Your task to perform on an android device: see creations saved in the google photos Image 0: 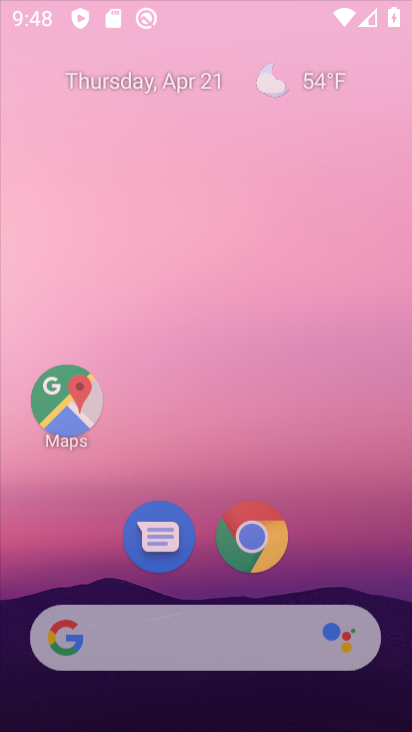
Step 0: click (220, 203)
Your task to perform on an android device: see creations saved in the google photos Image 1: 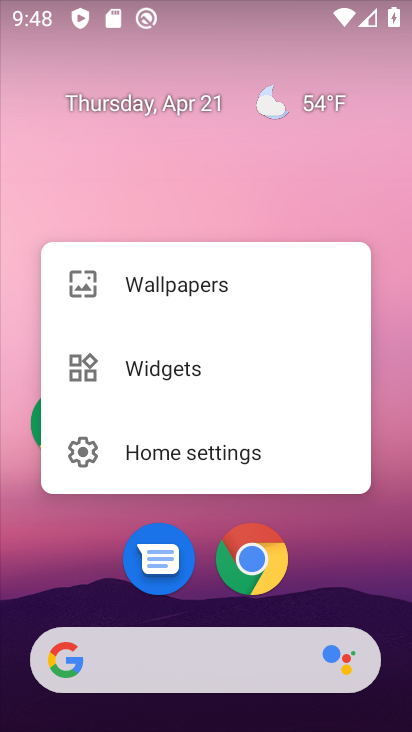
Step 1: drag from (198, 416) to (246, 140)
Your task to perform on an android device: see creations saved in the google photos Image 2: 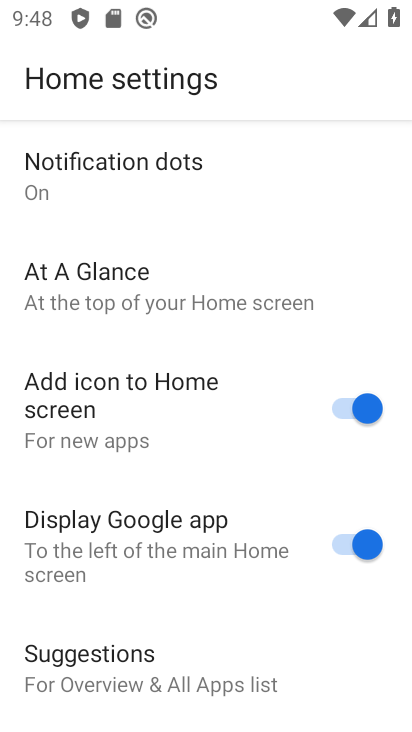
Step 2: press back button
Your task to perform on an android device: see creations saved in the google photos Image 3: 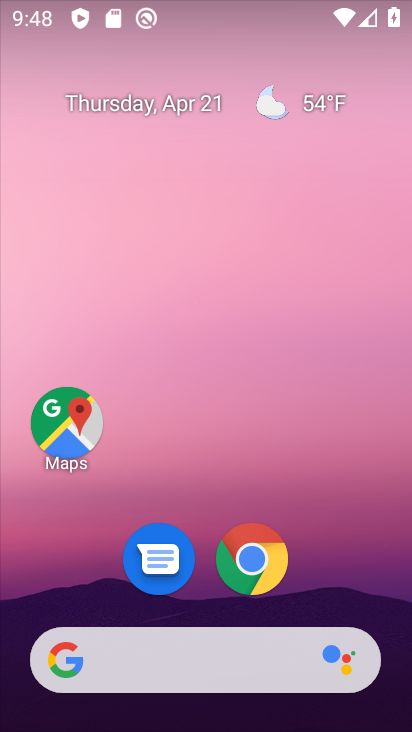
Step 3: drag from (197, 561) to (250, 125)
Your task to perform on an android device: see creations saved in the google photos Image 4: 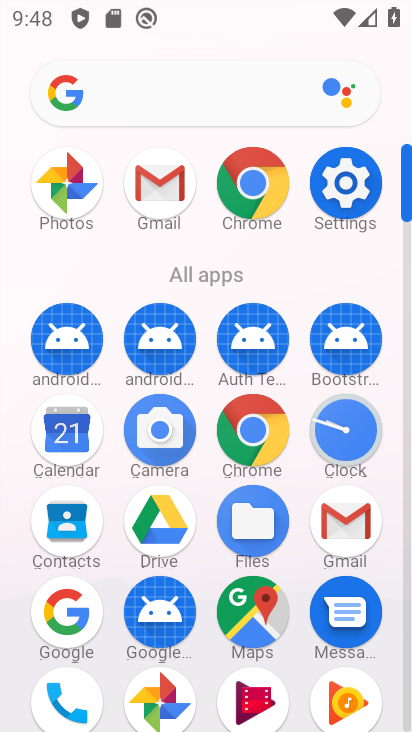
Step 4: click (150, 686)
Your task to perform on an android device: see creations saved in the google photos Image 5: 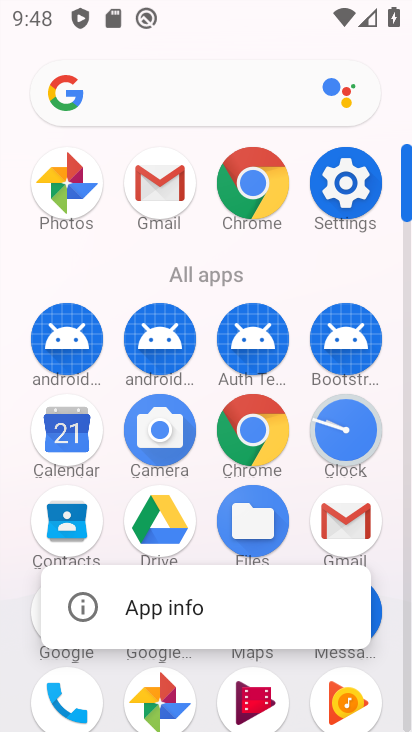
Step 5: click (159, 690)
Your task to perform on an android device: see creations saved in the google photos Image 6: 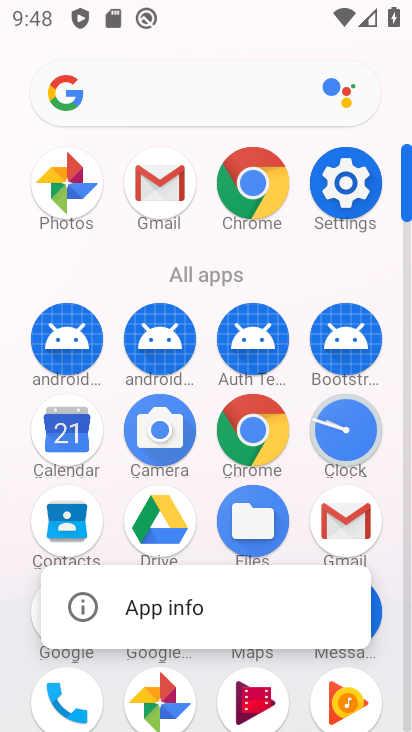
Step 6: click (158, 696)
Your task to perform on an android device: see creations saved in the google photos Image 7: 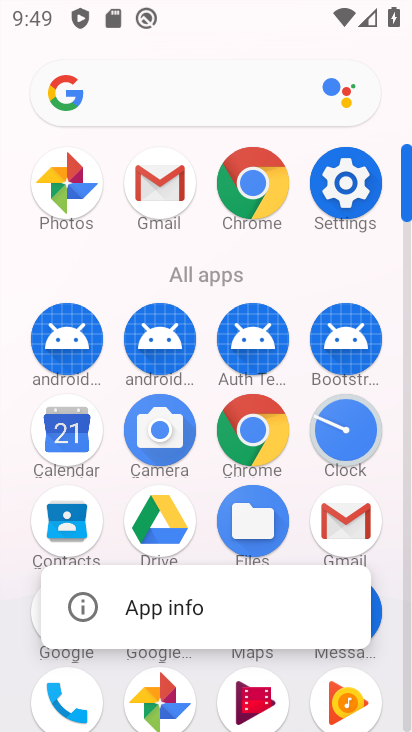
Step 7: click (168, 687)
Your task to perform on an android device: see creations saved in the google photos Image 8: 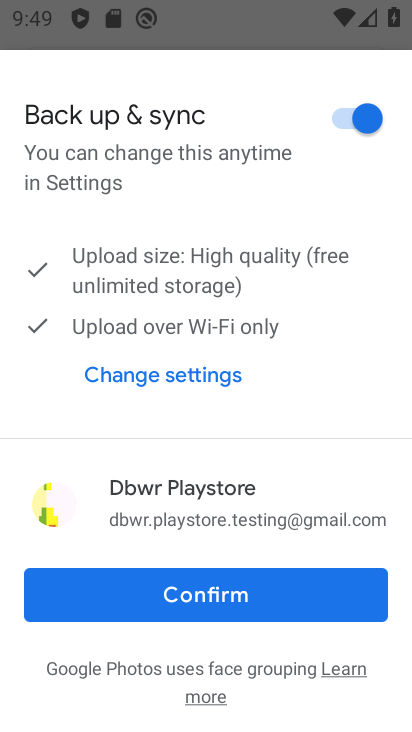
Step 8: click (193, 590)
Your task to perform on an android device: see creations saved in the google photos Image 9: 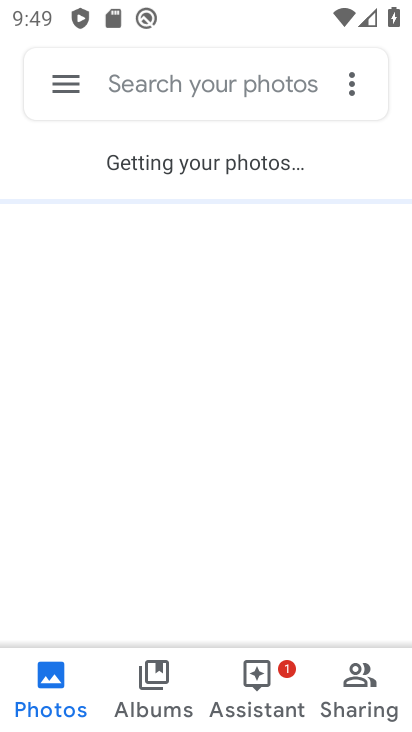
Step 9: click (74, 88)
Your task to perform on an android device: see creations saved in the google photos Image 10: 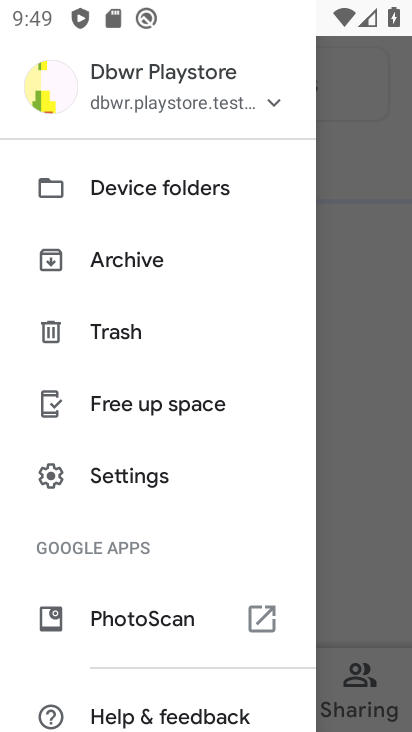
Step 10: click (161, 262)
Your task to perform on an android device: see creations saved in the google photos Image 11: 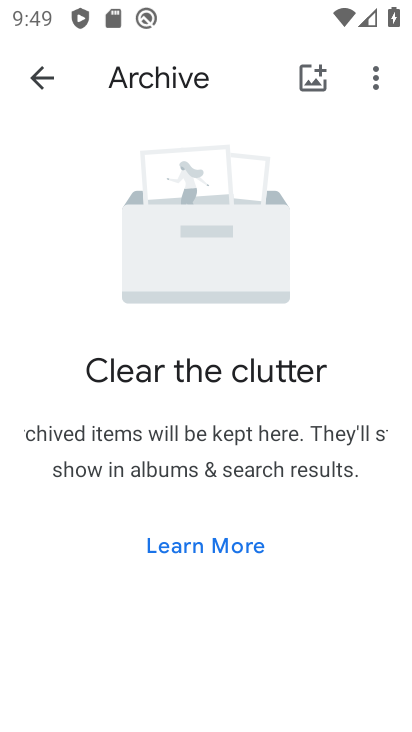
Step 11: click (42, 74)
Your task to perform on an android device: see creations saved in the google photos Image 12: 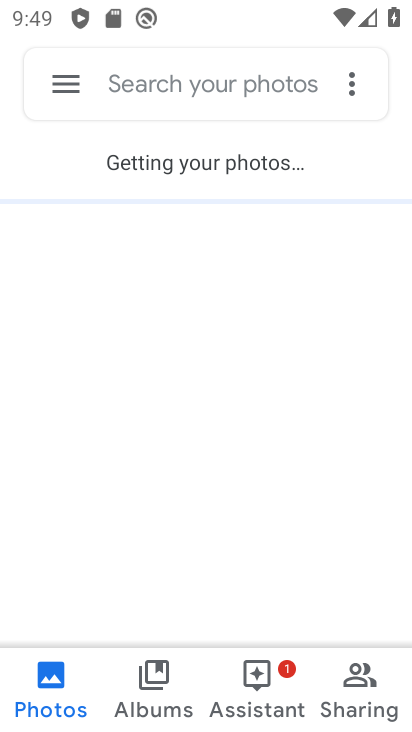
Step 12: click (68, 684)
Your task to perform on an android device: see creations saved in the google photos Image 13: 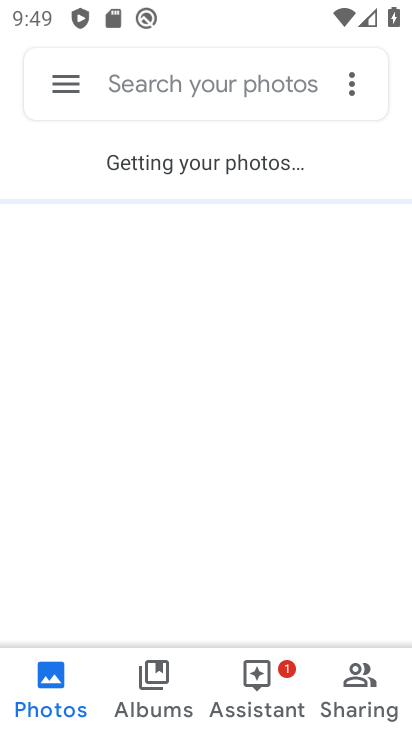
Step 13: click (349, 77)
Your task to perform on an android device: see creations saved in the google photos Image 14: 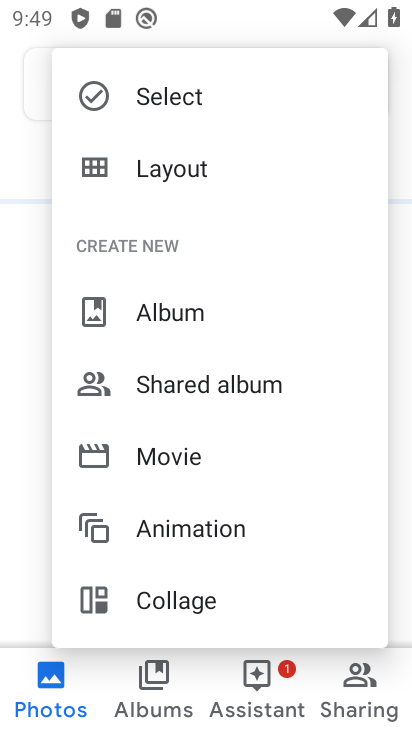
Step 14: task complete